Your task to perform on an android device: Search for pizza restaurants on Maps Image 0: 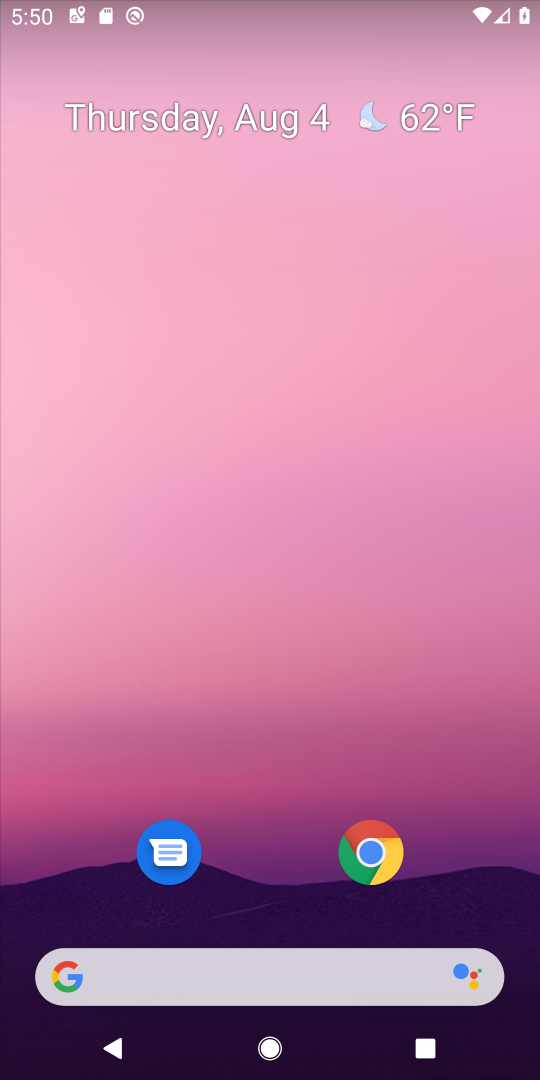
Step 0: drag from (290, 907) to (277, 237)
Your task to perform on an android device: Search for pizza restaurants on Maps Image 1: 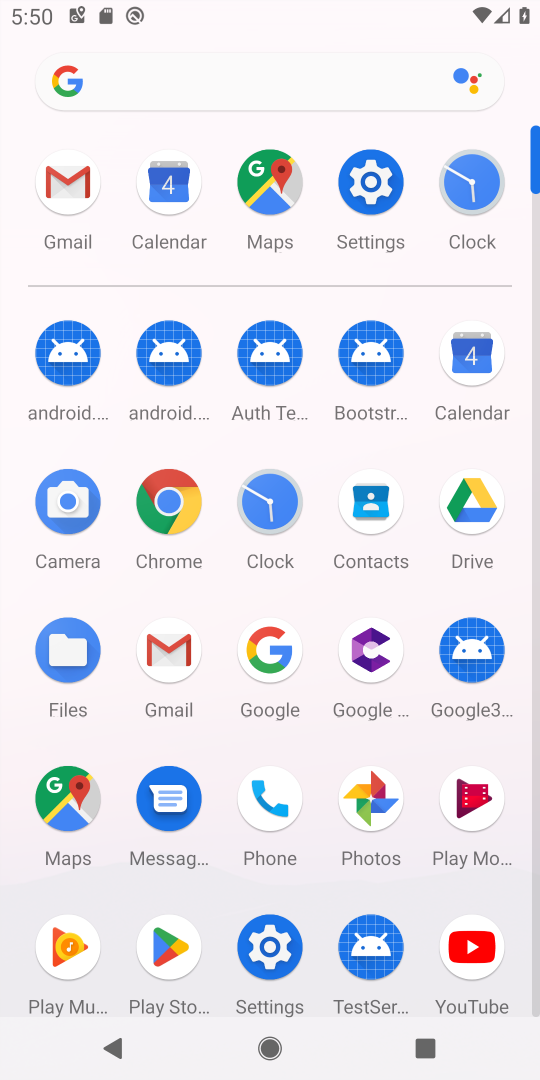
Step 1: click (75, 796)
Your task to perform on an android device: Search for pizza restaurants on Maps Image 2: 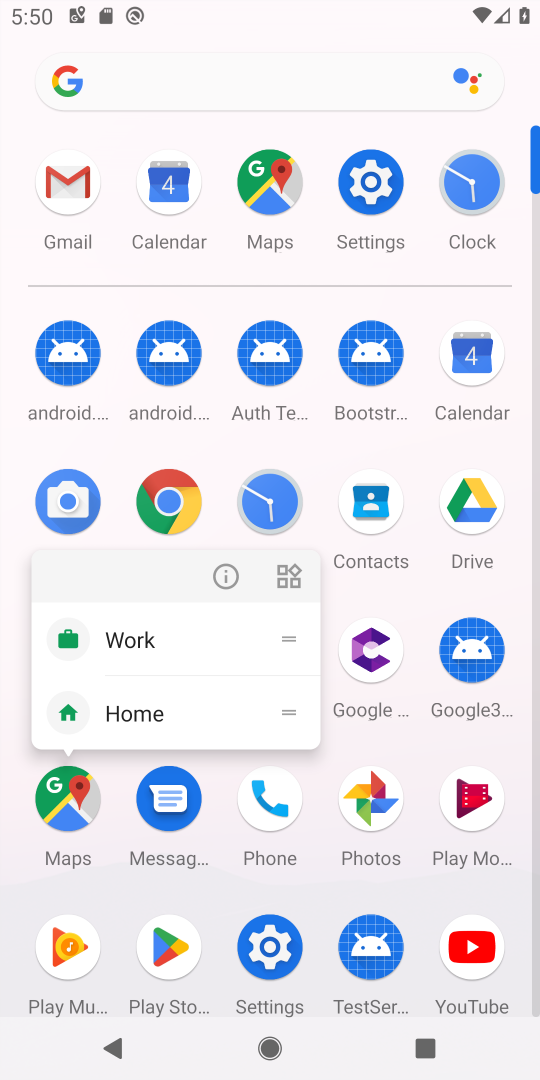
Step 2: click (72, 799)
Your task to perform on an android device: Search for pizza restaurants on Maps Image 3: 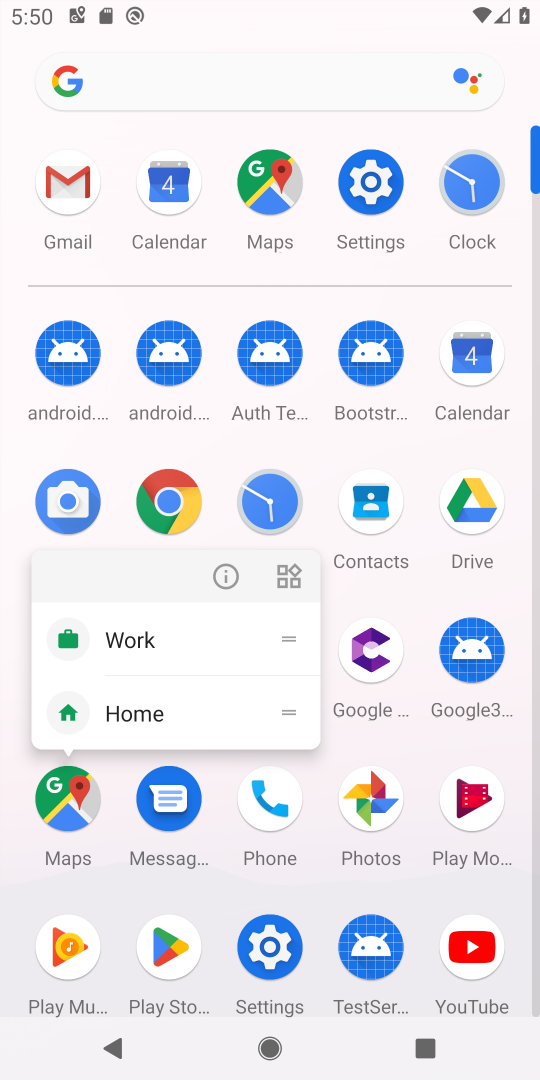
Step 3: click (74, 791)
Your task to perform on an android device: Search for pizza restaurants on Maps Image 4: 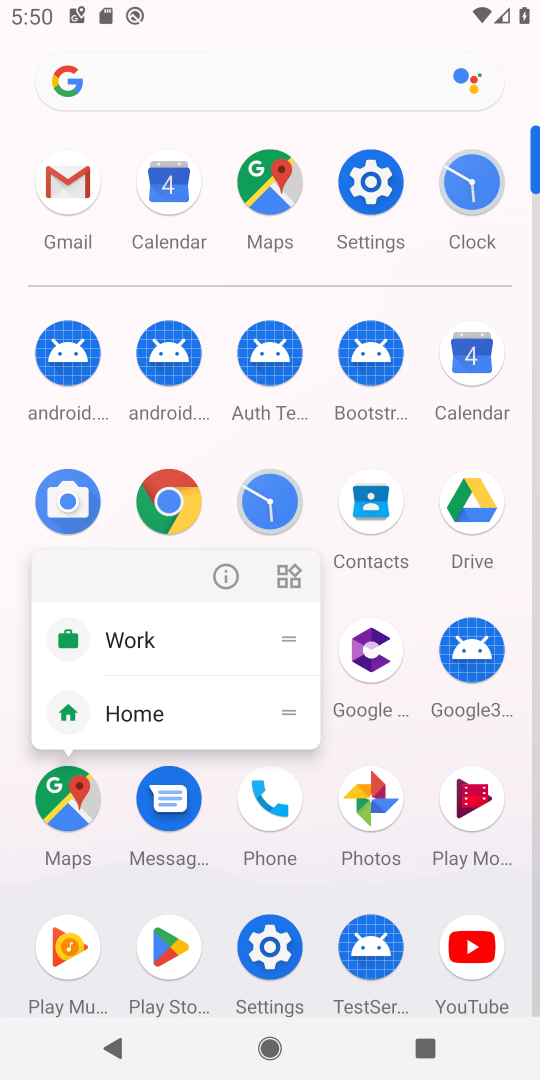
Step 4: click (66, 811)
Your task to perform on an android device: Search for pizza restaurants on Maps Image 5: 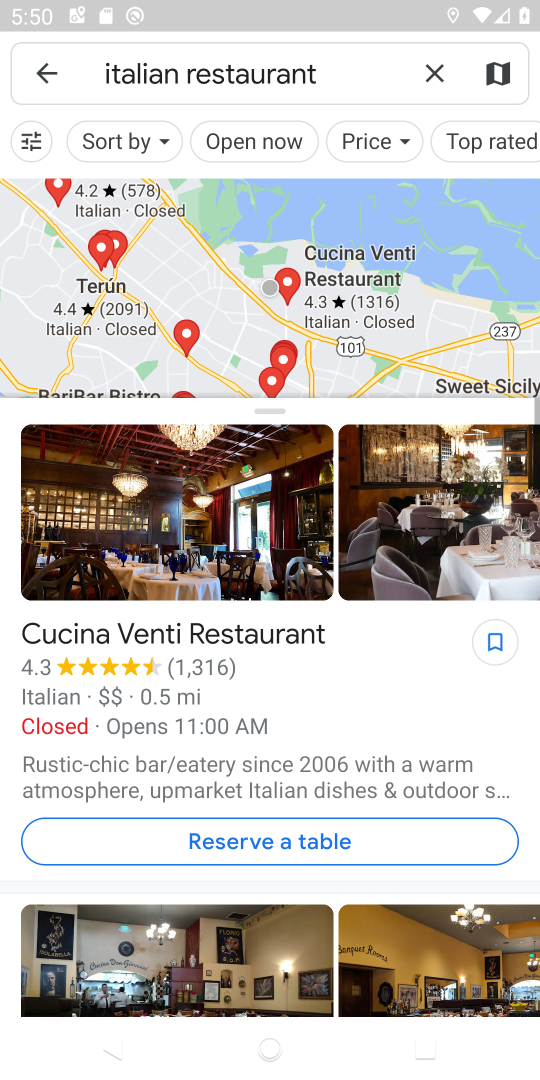
Step 5: click (438, 71)
Your task to perform on an android device: Search for pizza restaurants on Maps Image 6: 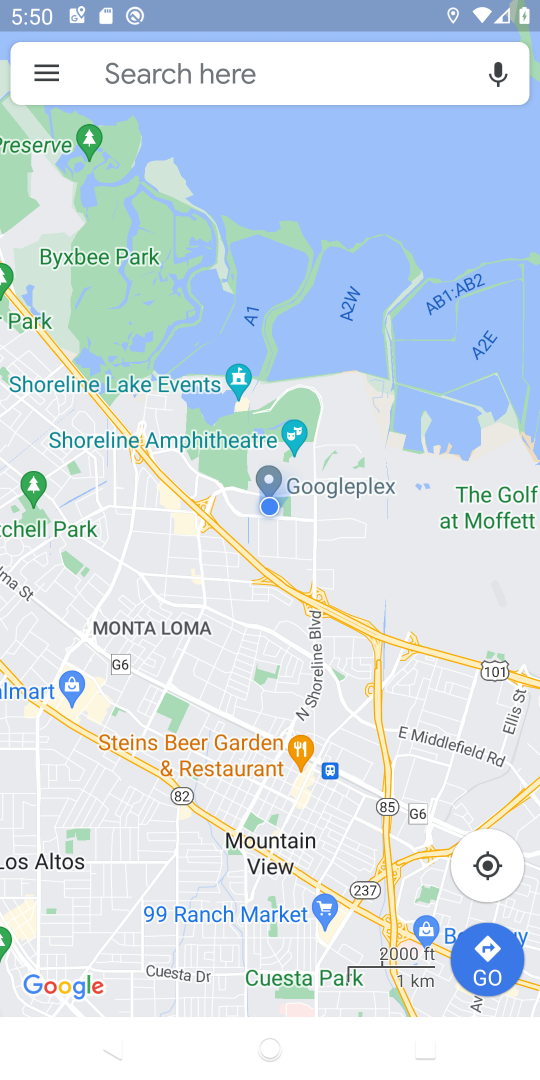
Step 6: click (360, 67)
Your task to perform on an android device: Search for pizza restaurants on Maps Image 7: 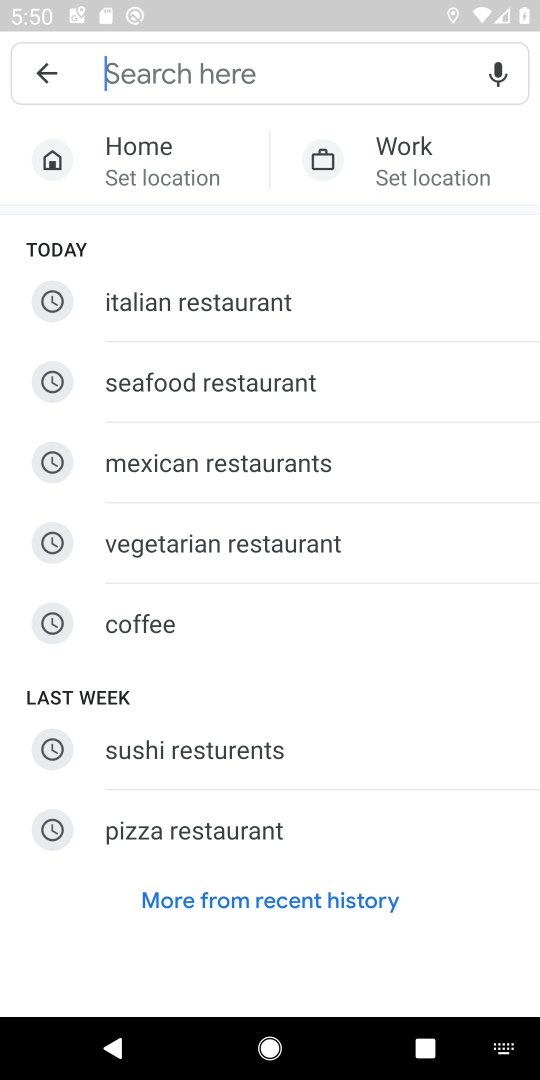
Step 7: type "Pizza restaurants"
Your task to perform on an android device: Search for pizza restaurants on Maps Image 8: 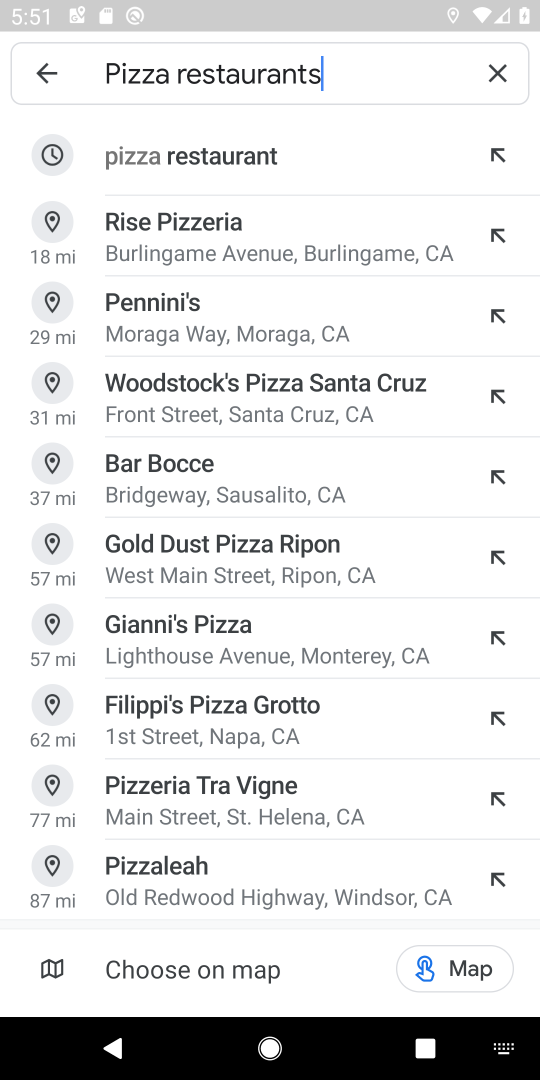
Step 8: click (198, 170)
Your task to perform on an android device: Search for pizza restaurants on Maps Image 9: 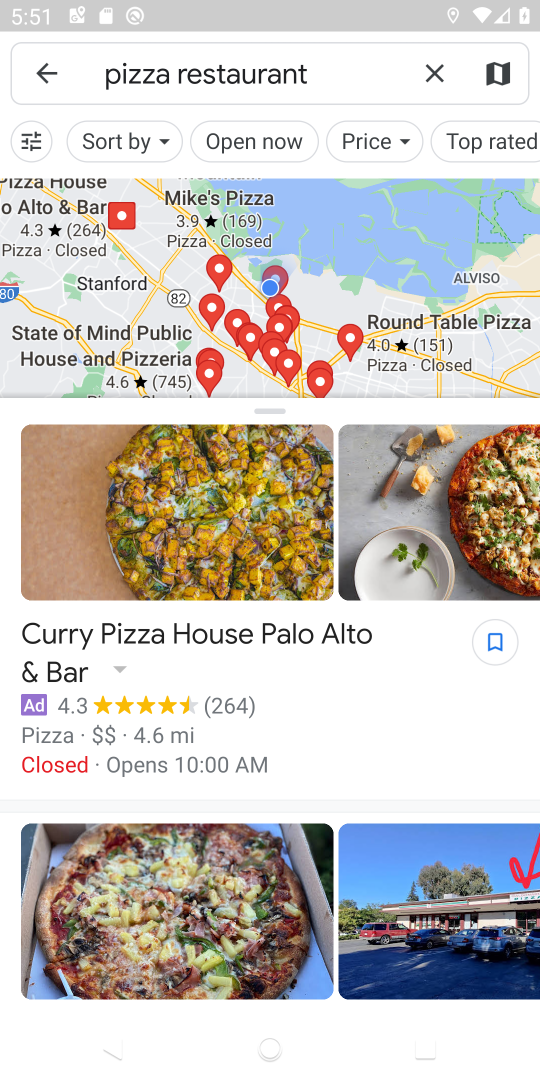
Step 9: task complete